Your task to perform on an android device: find which apps use the phone's location Image 0: 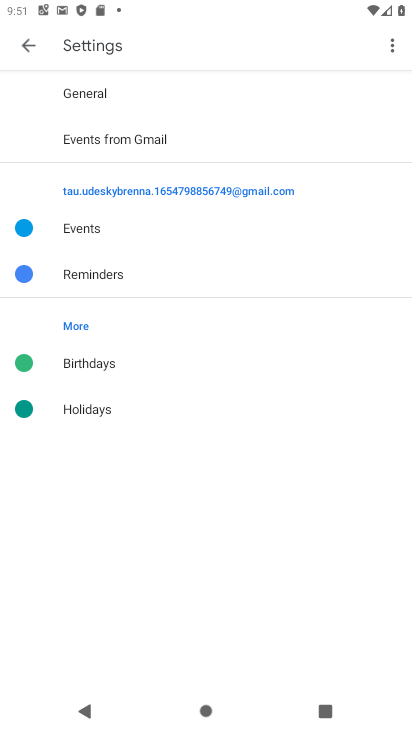
Step 0: press back button
Your task to perform on an android device: find which apps use the phone's location Image 1: 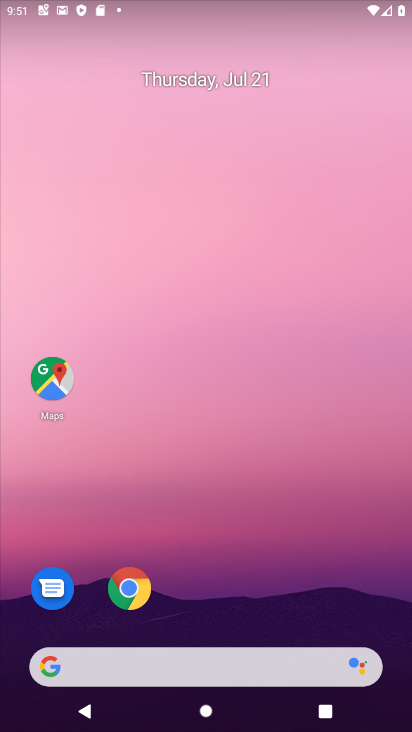
Step 1: drag from (167, 651) to (236, 78)
Your task to perform on an android device: find which apps use the phone's location Image 2: 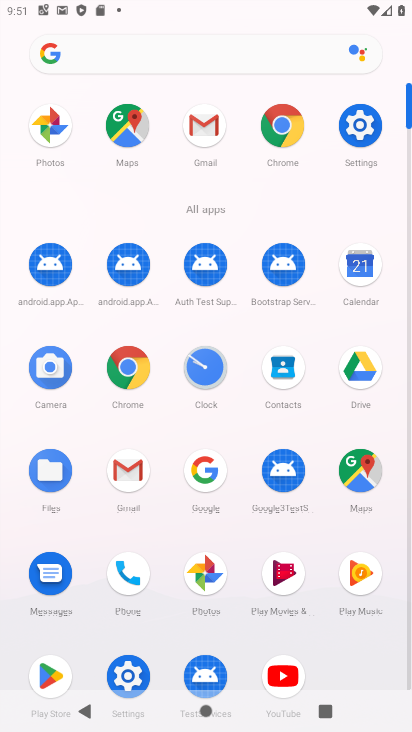
Step 2: click (378, 127)
Your task to perform on an android device: find which apps use the phone's location Image 3: 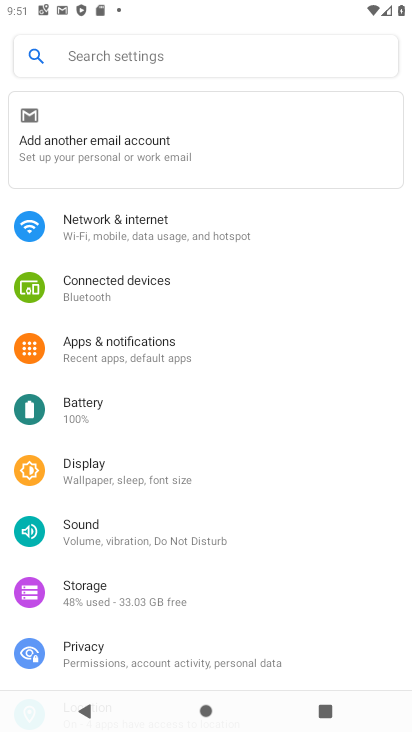
Step 3: drag from (144, 624) to (204, 334)
Your task to perform on an android device: find which apps use the phone's location Image 4: 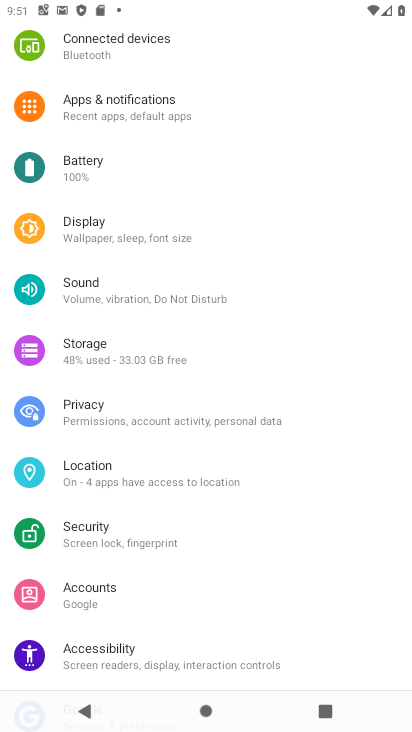
Step 4: click (90, 460)
Your task to perform on an android device: find which apps use the phone's location Image 5: 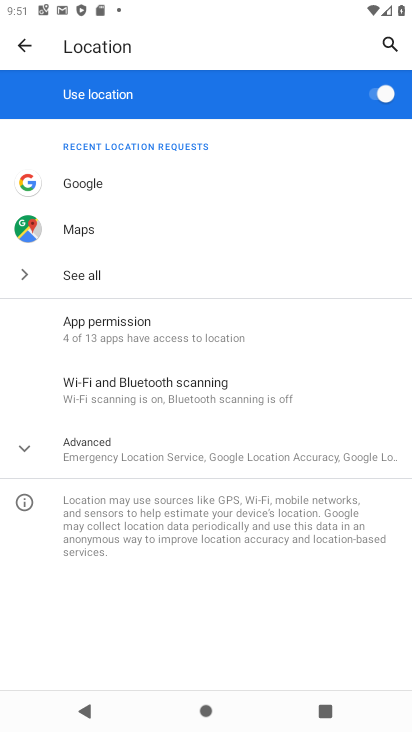
Step 5: click (94, 327)
Your task to perform on an android device: find which apps use the phone's location Image 6: 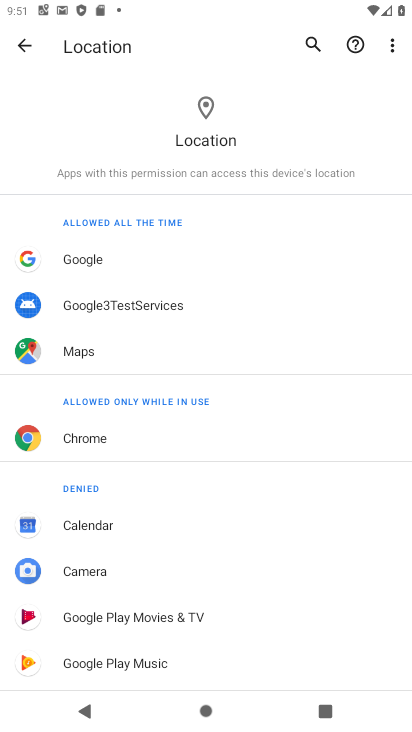
Step 6: task complete